Your task to perform on an android device: Go to eBay Image 0: 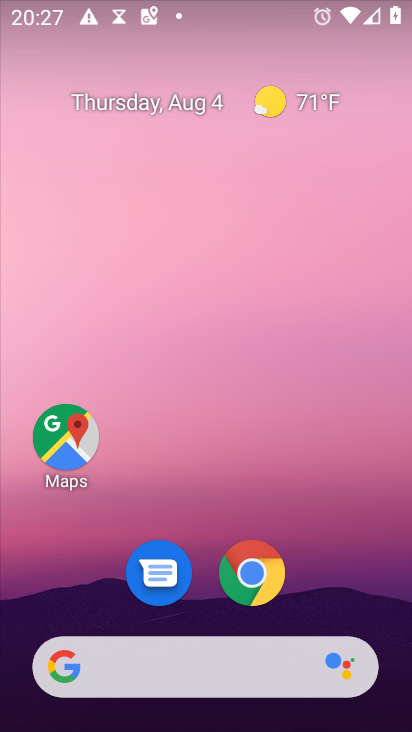
Step 0: click (257, 581)
Your task to perform on an android device: Go to eBay Image 1: 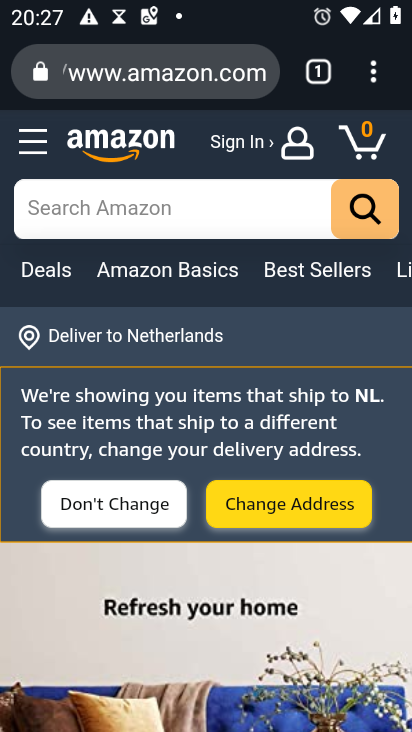
Step 1: click (170, 90)
Your task to perform on an android device: Go to eBay Image 2: 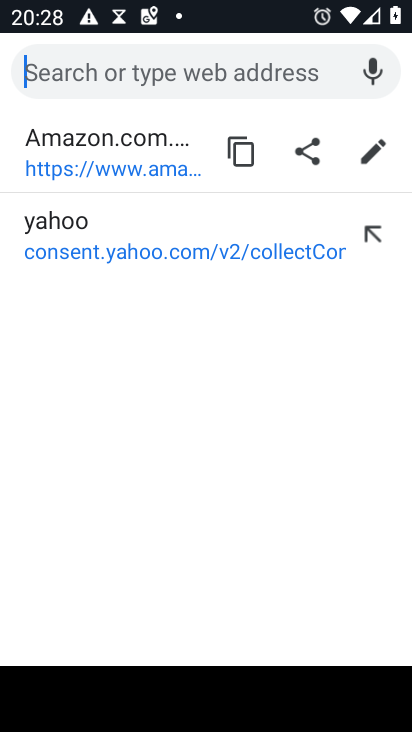
Step 2: type "ebay"
Your task to perform on an android device: Go to eBay Image 3: 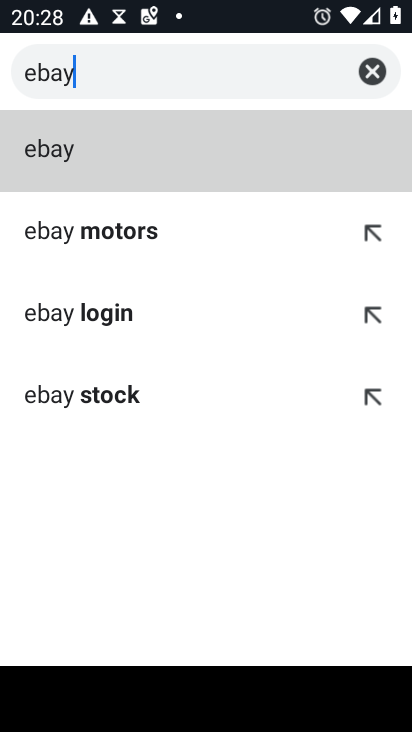
Step 3: click (338, 130)
Your task to perform on an android device: Go to eBay Image 4: 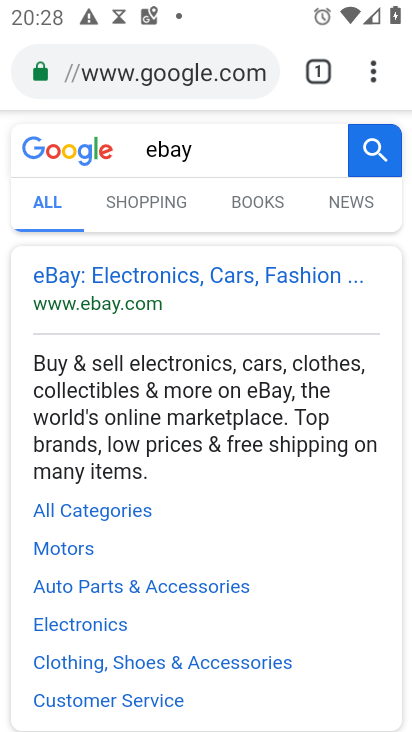
Step 4: click (108, 286)
Your task to perform on an android device: Go to eBay Image 5: 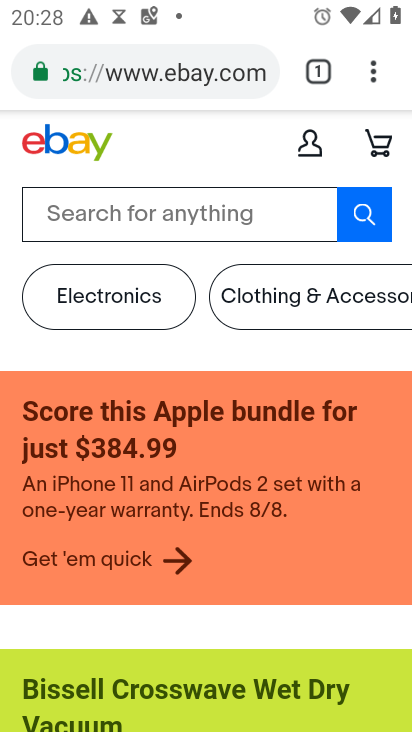
Step 5: task complete